Your task to perform on an android device: open app "DuckDuckGo Privacy Browser" (install if not already installed), go to login, and select forgot password Image 0: 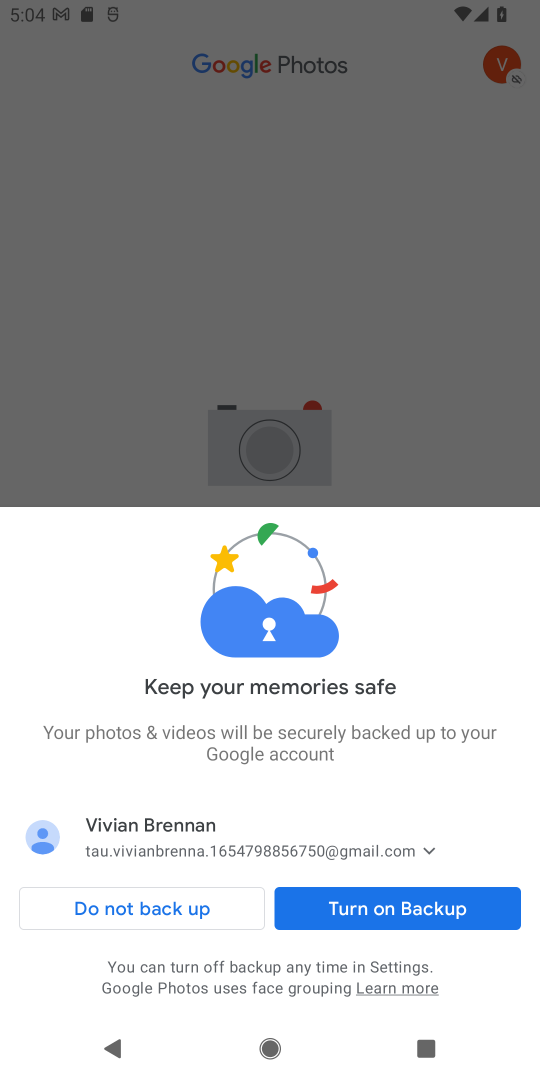
Step 0: press home button
Your task to perform on an android device: open app "DuckDuckGo Privacy Browser" (install if not already installed), go to login, and select forgot password Image 1: 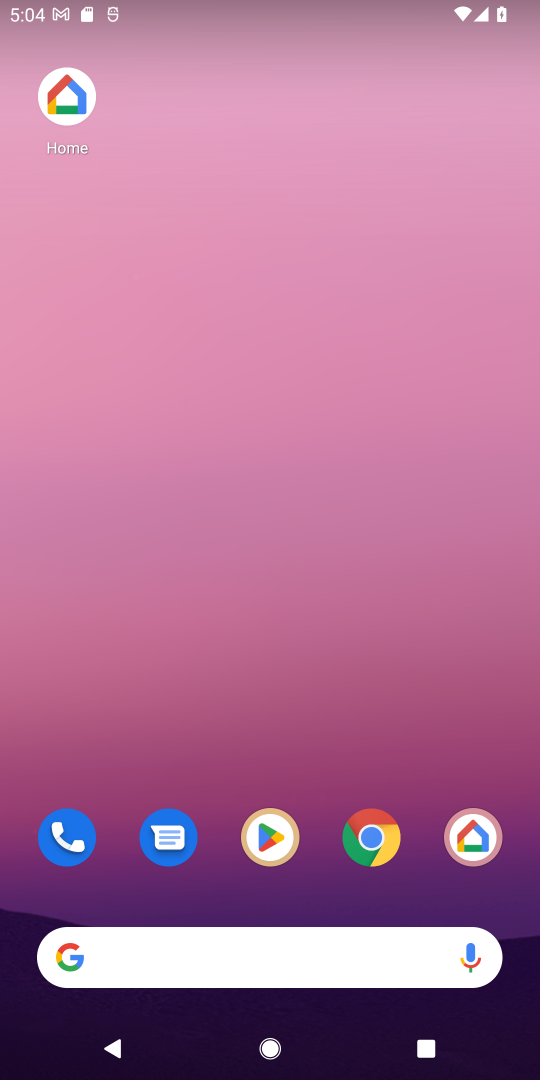
Step 1: click (276, 835)
Your task to perform on an android device: open app "DuckDuckGo Privacy Browser" (install if not already installed), go to login, and select forgot password Image 2: 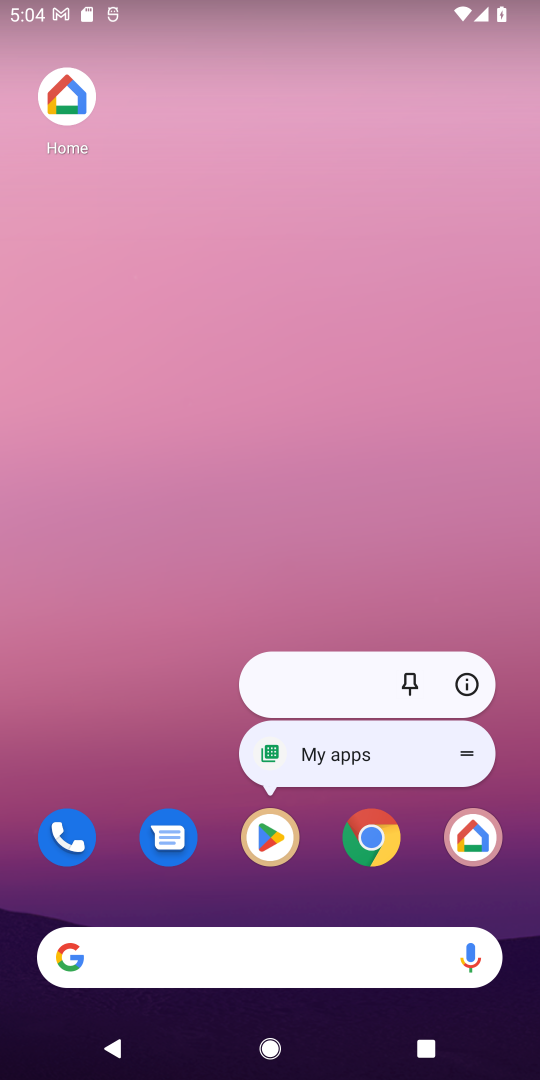
Step 2: click (265, 839)
Your task to perform on an android device: open app "DuckDuckGo Privacy Browser" (install if not already installed), go to login, and select forgot password Image 3: 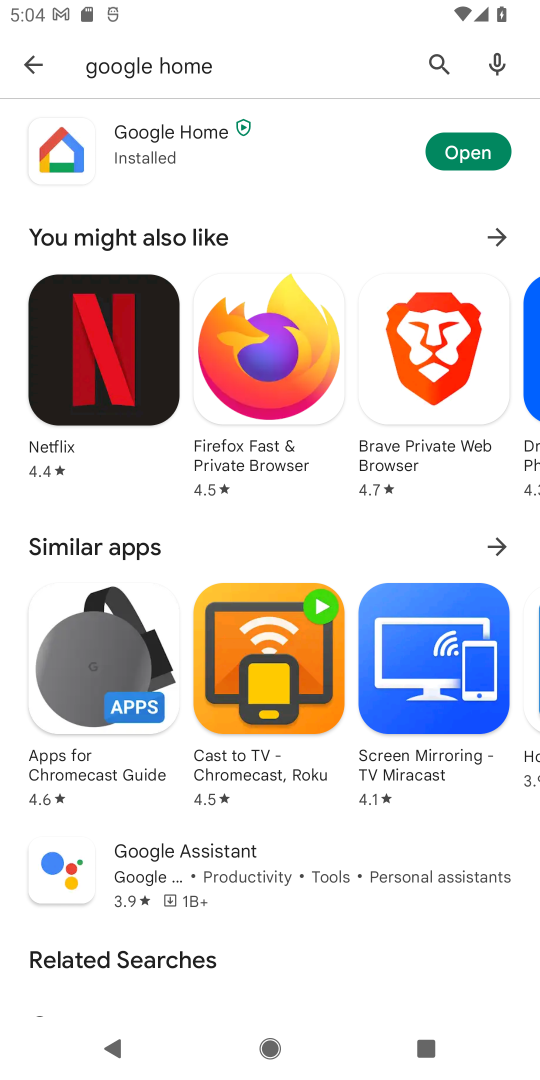
Step 3: click (444, 66)
Your task to perform on an android device: open app "DuckDuckGo Privacy Browser" (install if not already installed), go to login, and select forgot password Image 4: 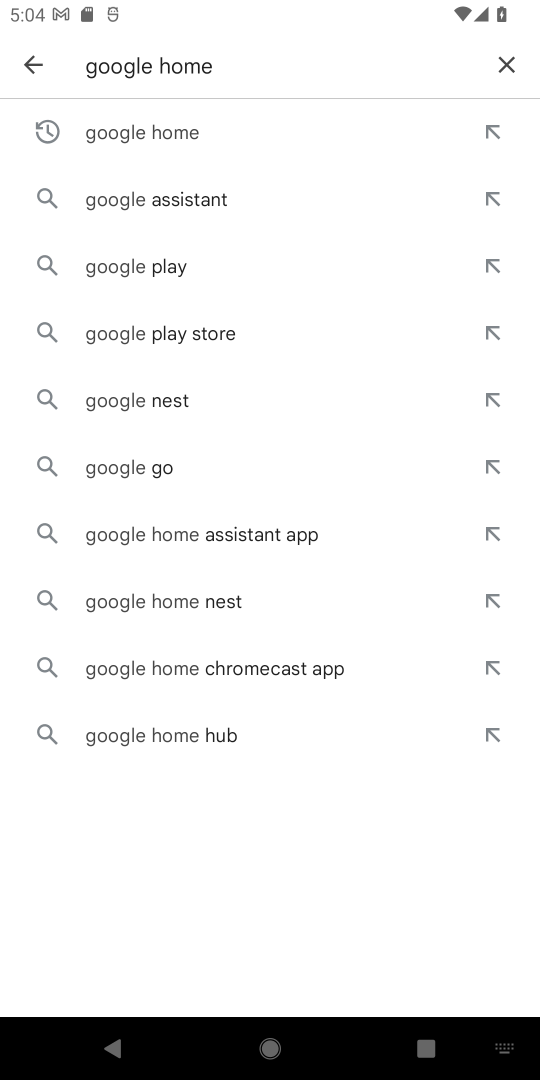
Step 4: click (503, 55)
Your task to perform on an android device: open app "DuckDuckGo Privacy Browser" (install if not already installed), go to login, and select forgot password Image 5: 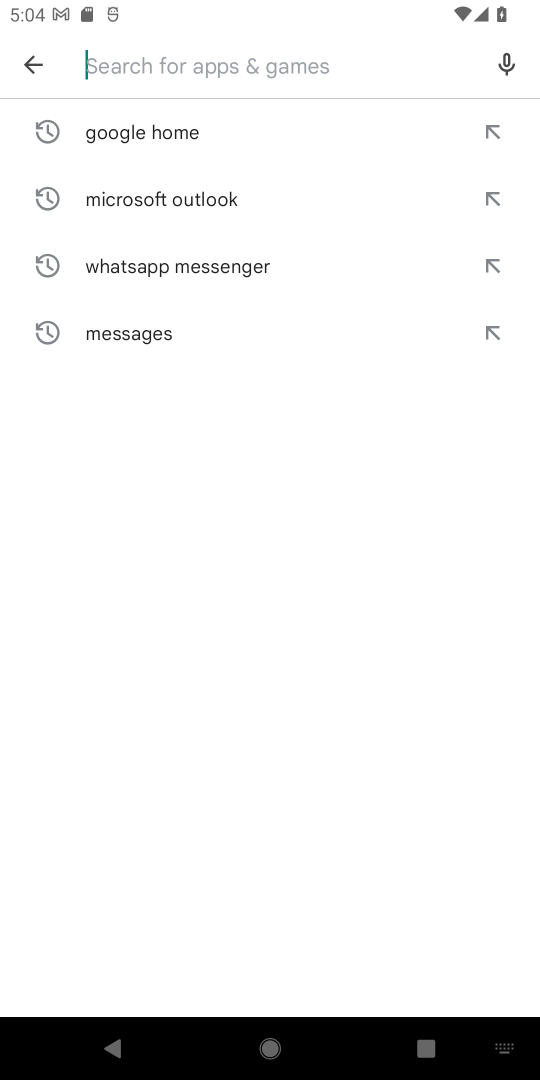
Step 5: type "DuckDuckGo Privacy Browser"
Your task to perform on an android device: open app "DuckDuckGo Privacy Browser" (install if not already installed), go to login, and select forgot password Image 6: 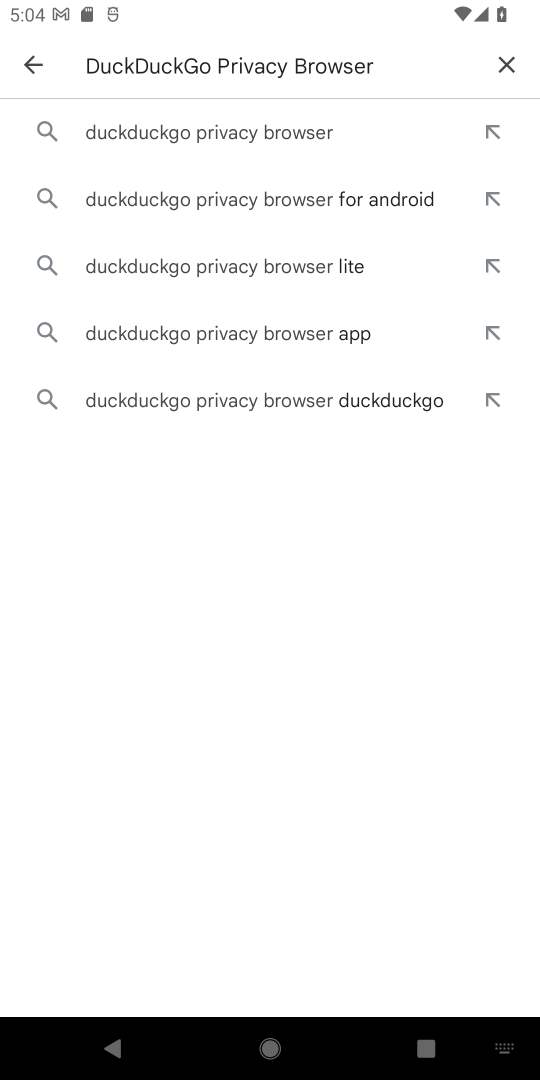
Step 6: click (184, 135)
Your task to perform on an android device: open app "DuckDuckGo Privacy Browser" (install if not already installed), go to login, and select forgot password Image 7: 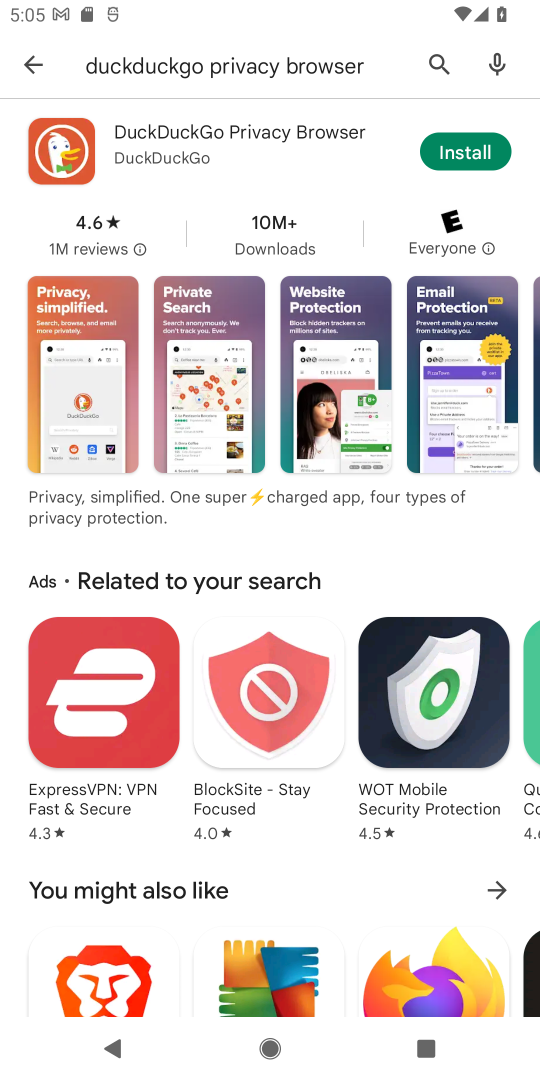
Step 7: click (484, 158)
Your task to perform on an android device: open app "DuckDuckGo Privacy Browser" (install if not already installed), go to login, and select forgot password Image 8: 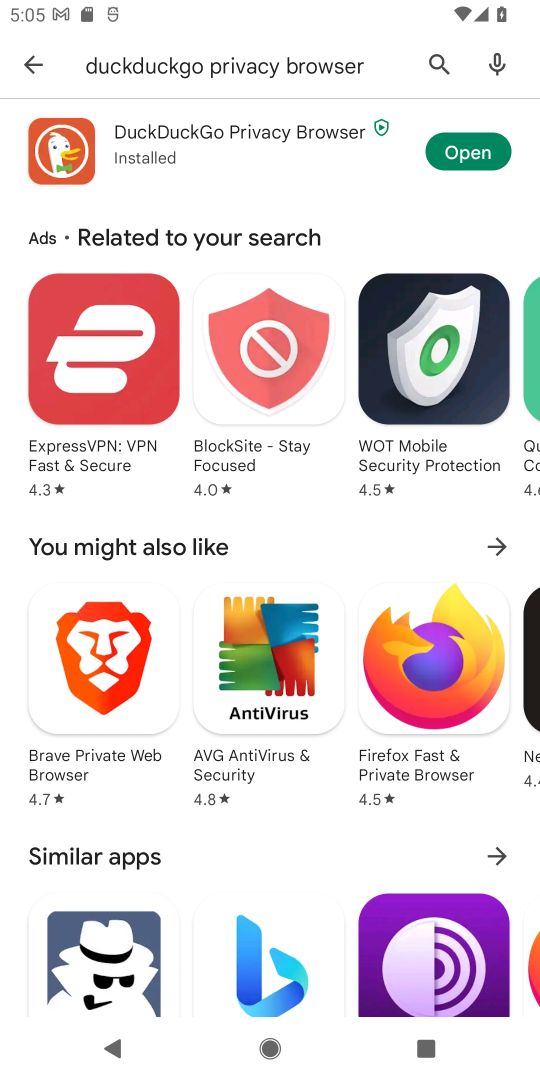
Step 8: click (465, 145)
Your task to perform on an android device: open app "DuckDuckGo Privacy Browser" (install if not already installed), go to login, and select forgot password Image 9: 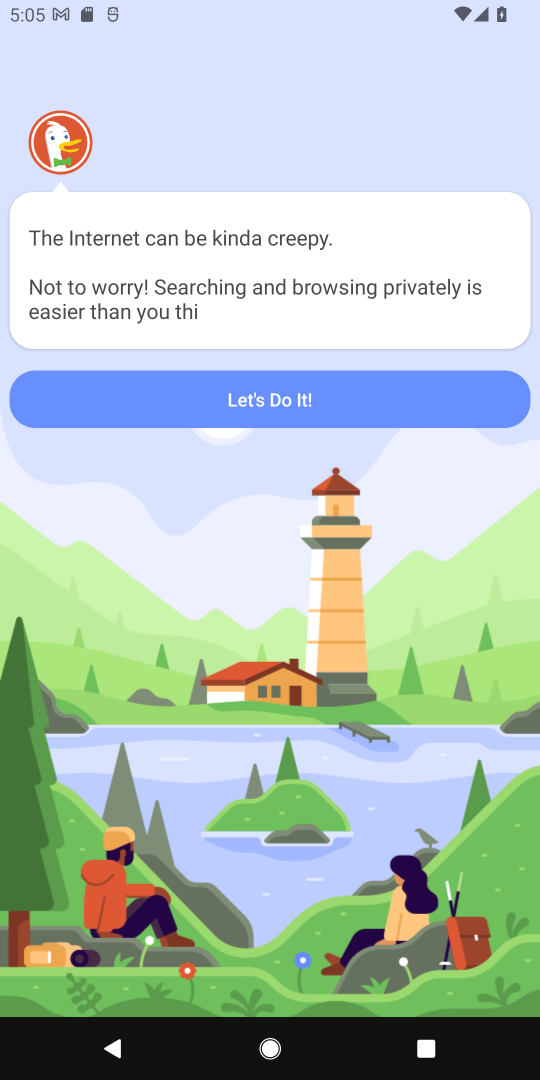
Step 9: click (245, 394)
Your task to perform on an android device: open app "DuckDuckGo Privacy Browser" (install if not already installed), go to login, and select forgot password Image 10: 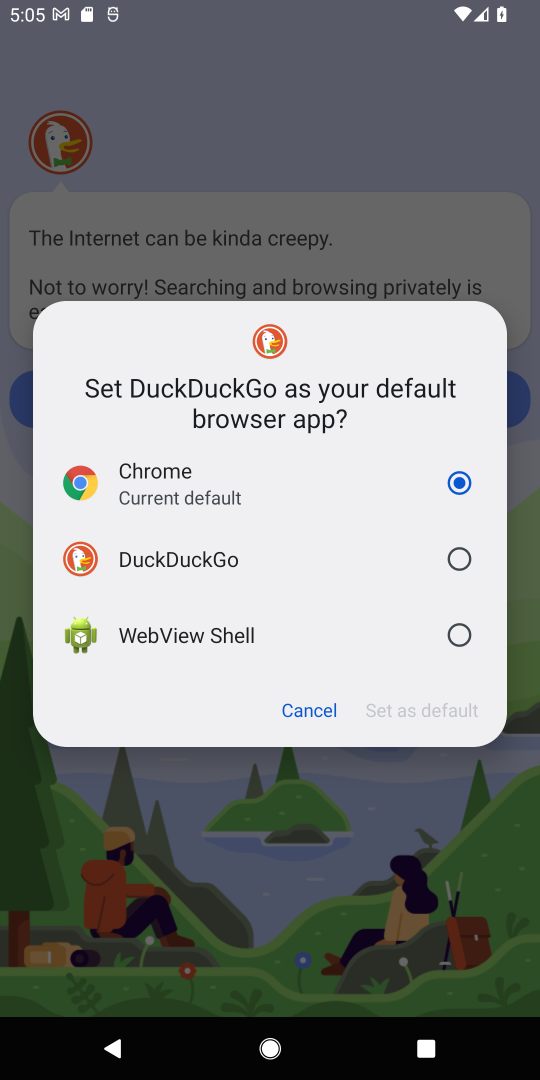
Step 10: click (459, 555)
Your task to perform on an android device: open app "DuckDuckGo Privacy Browser" (install if not already installed), go to login, and select forgot password Image 11: 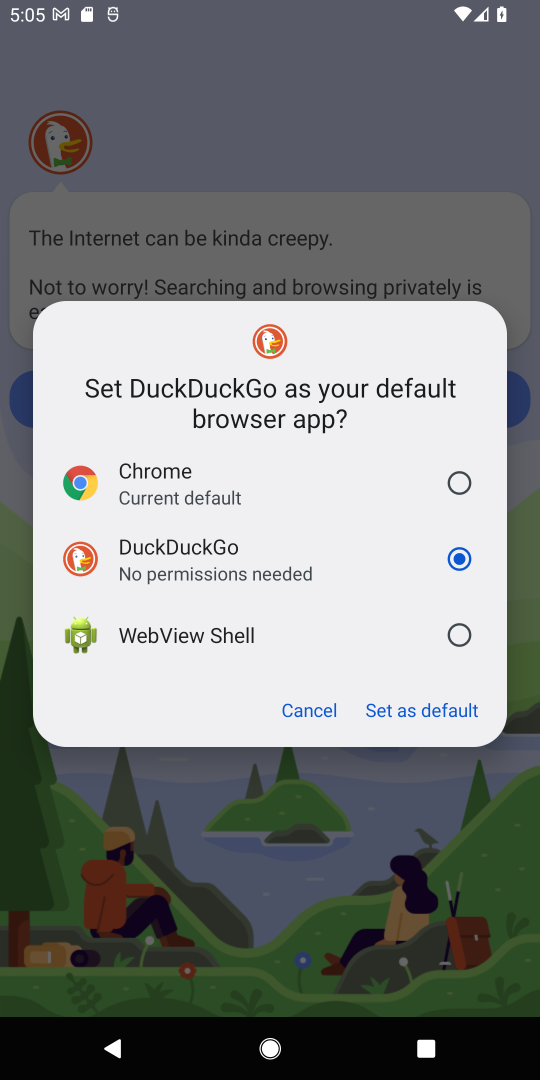
Step 11: click (331, 780)
Your task to perform on an android device: open app "DuckDuckGo Privacy Browser" (install if not already installed), go to login, and select forgot password Image 12: 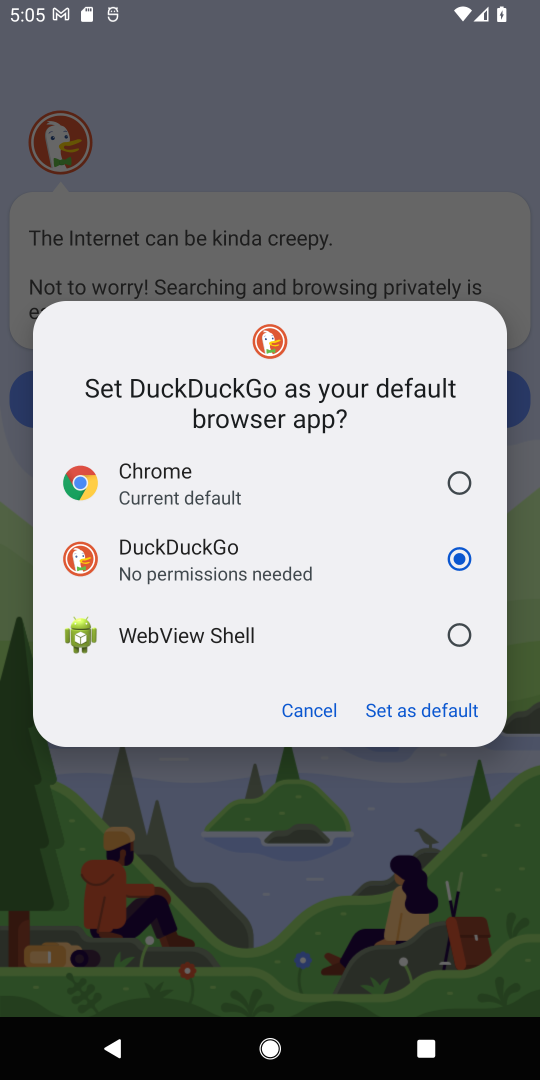
Step 12: click (461, 479)
Your task to perform on an android device: open app "DuckDuckGo Privacy Browser" (install if not already installed), go to login, and select forgot password Image 13: 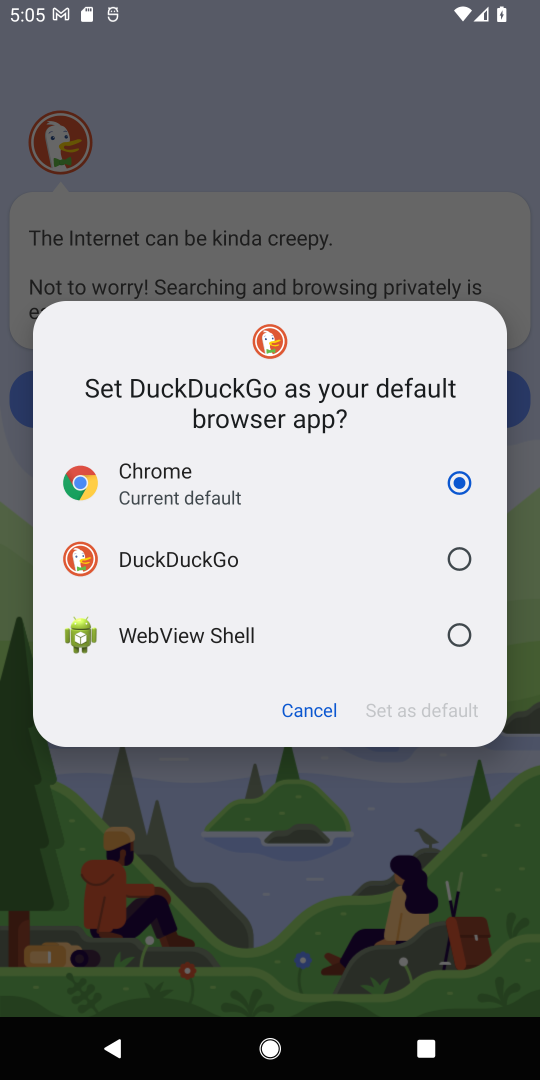
Step 13: click (310, 773)
Your task to perform on an android device: open app "DuckDuckGo Privacy Browser" (install if not already installed), go to login, and select forgot password Image 14: 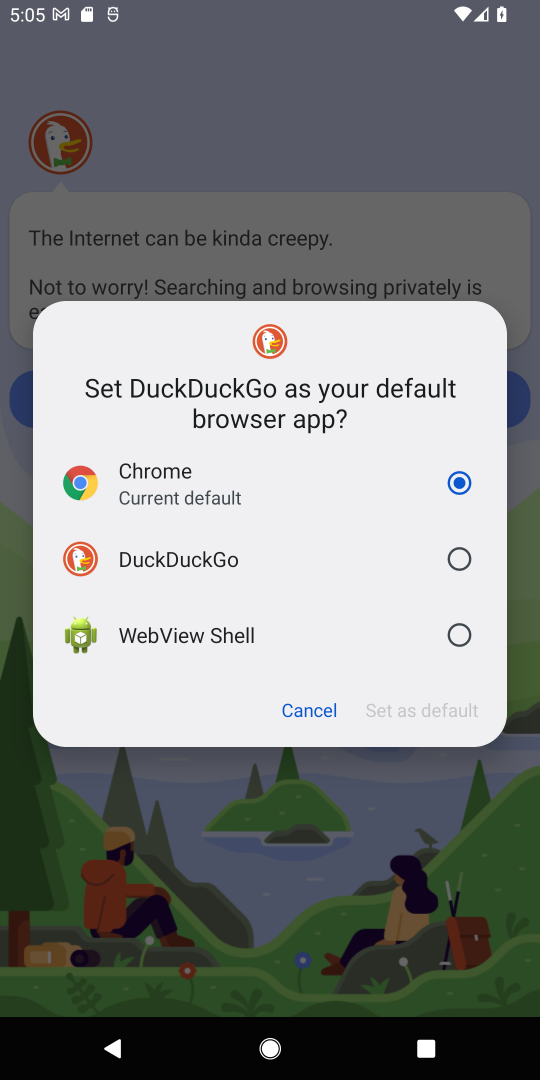
Step 14: task complete